Your task to perform on an android device: Open privacy settings Image 0: 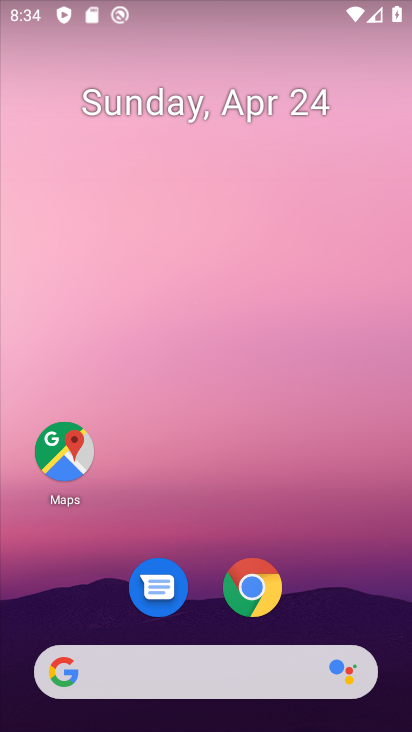
Step 0: drag from (297, 582) to (312, 7)
Your task to perform on an android device: Open privacy settings Image 1: 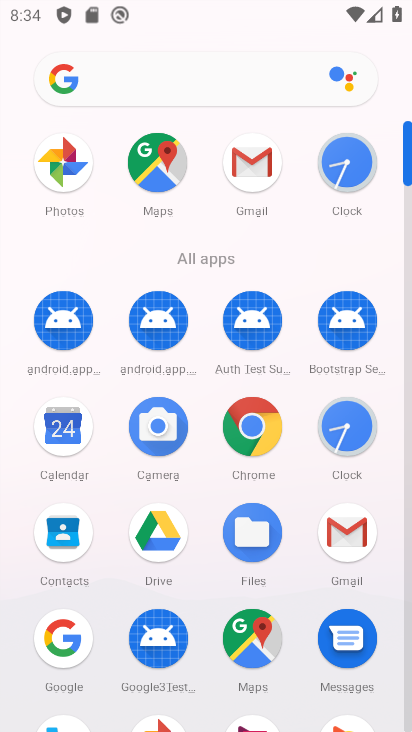
Step 1: drag from (309, 601) to (288, 309)
Your task to perform on an android device: Open privacy settings Image 2: 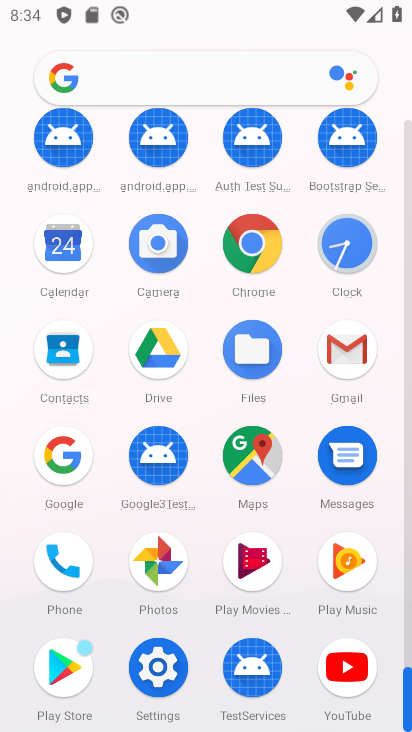
Step 2: click (148, 667)
Your task to perform on an android device: Open privacy settings Image 3: 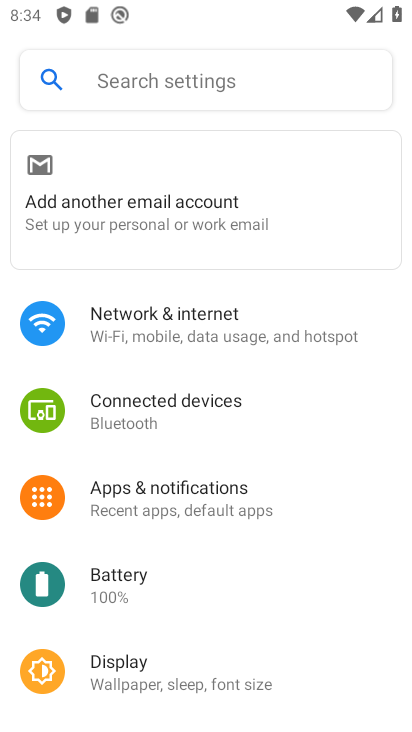
Step 3: drag from (288, 639) to (258, 195)
Your task to perform on an android device: Open privacy settings Image 4: 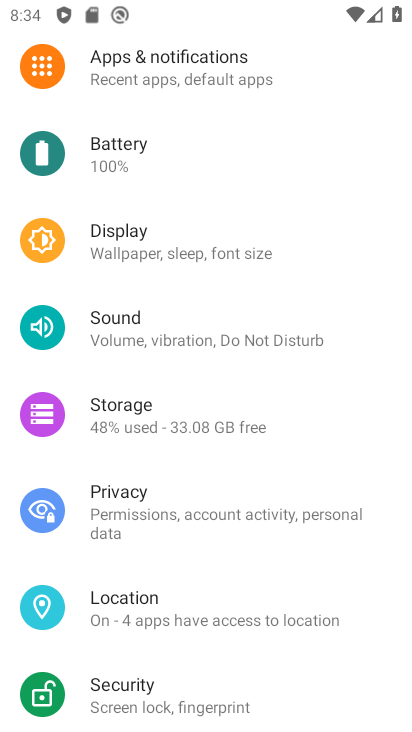
Step 4: click (158, 511)
Your task to perform on an android device: Open privacy settings Image 5: 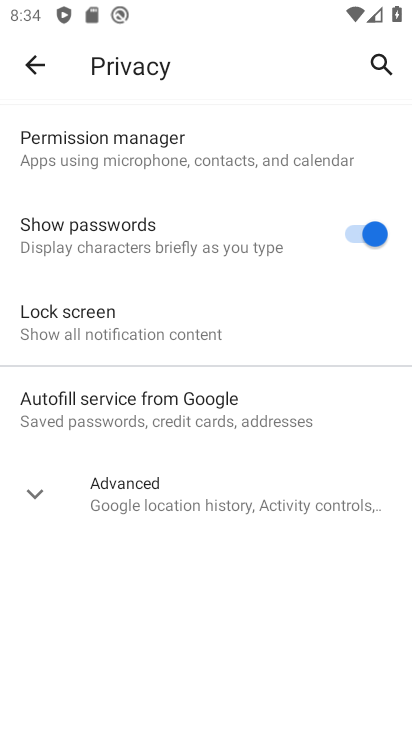
Step 5: task complete